Your task to perform on an android device: set the timer Image 0: 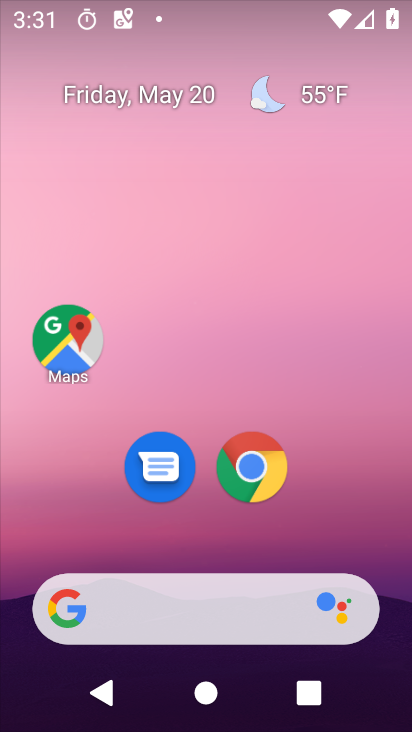
Step 0: drag from (199, 548) to (126, 66)
Your task to perform on an android device: set the timer Image 1: 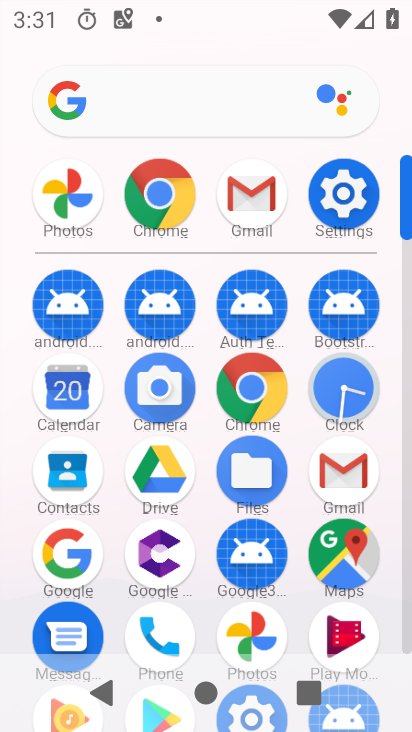
Step 1: click (339, 391)
Your task to perform on an android device: set the timer Image 2: 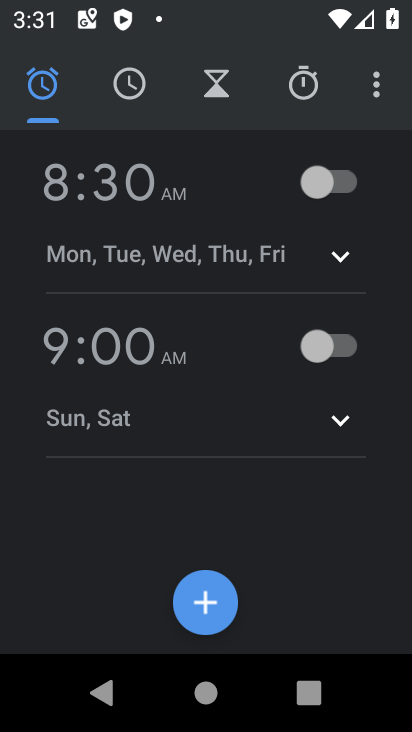
Step 2: click (314, 95)
Your task to perform on an android device: set the timer Image 3: 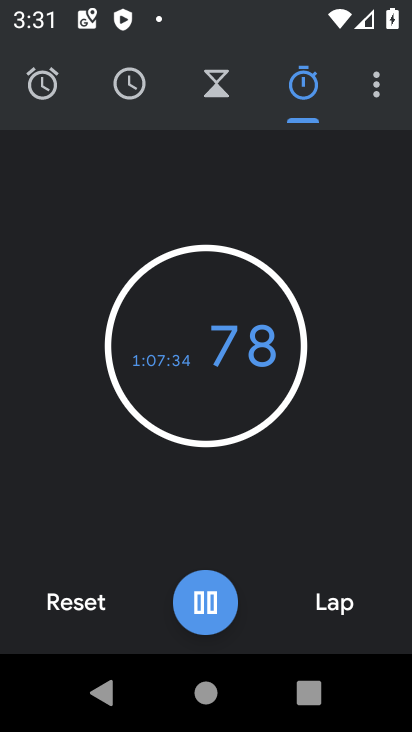
Step 3: click (229, 110)
Your task to perform on an android device: set the timer Image 4: 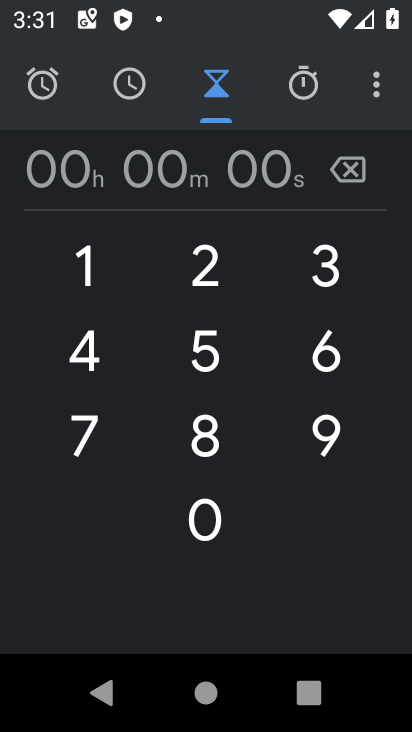
Step 4: click (195, 427)
Your task to perform on an android device: set the timer Image 5: 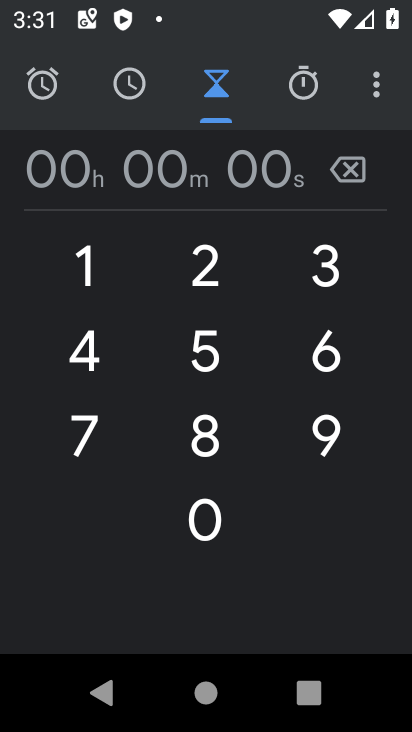
Step 5: click (195, 427)
Your task to perform on an android device: set the timer Image 6: 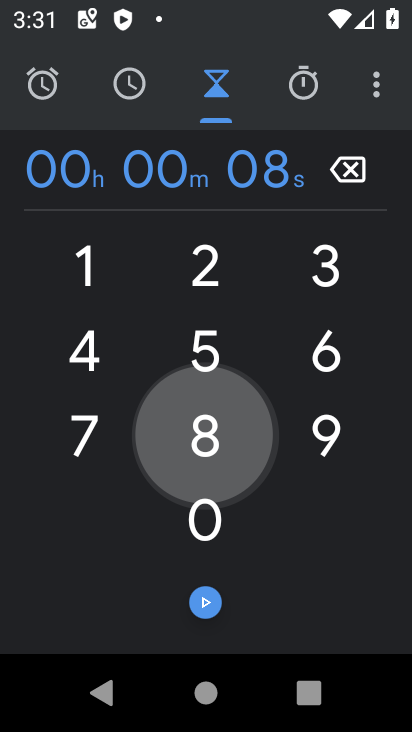
Step 6: click (195, 427)
Your task to perform on an android device: set the timer Image 7: 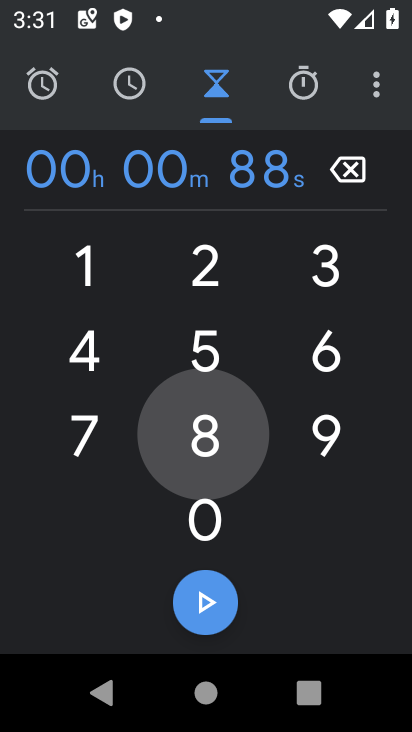
Step 7: click (195, 427)
Your task to perform on an android device: set the timer Image 8: 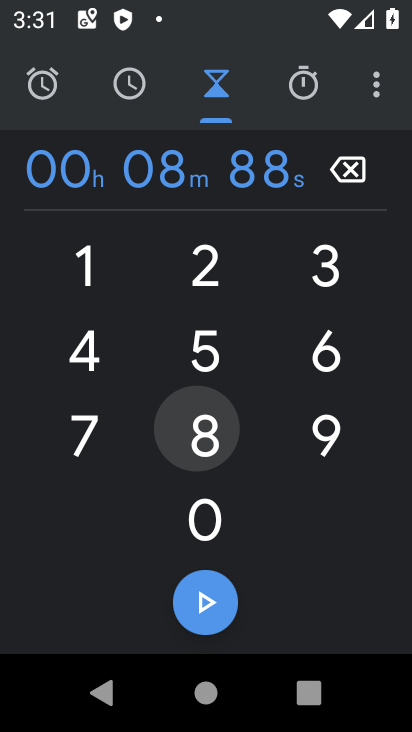
Step 8: click (195, 427)
Your task to perform on an android device: set the timer Image 9: 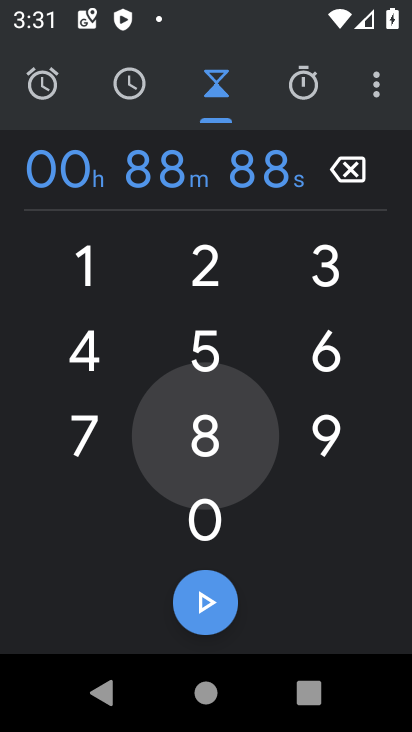
Step 9: click (195, 427)
Your task to perform on an android device: set the timer Image 10: 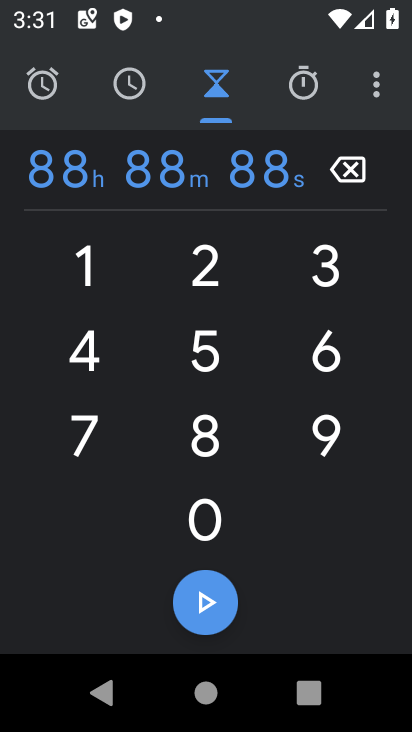
Step 10: click (195, 427)
Your task to perform on an android device: set the timer Image 11: 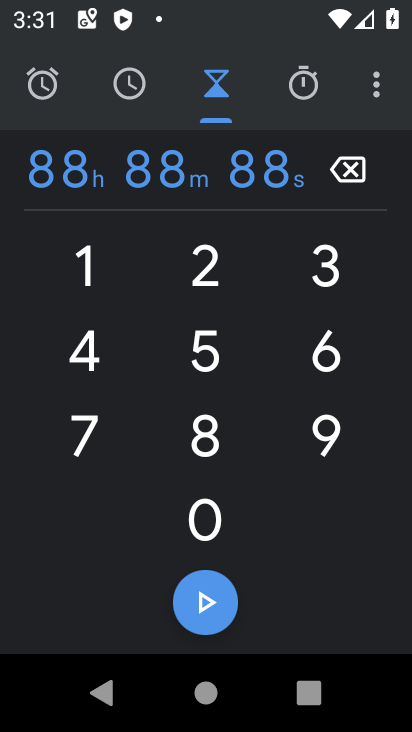
Step 11: click (196, 422)
Your task to perform on an android device: set the timer Image 12: 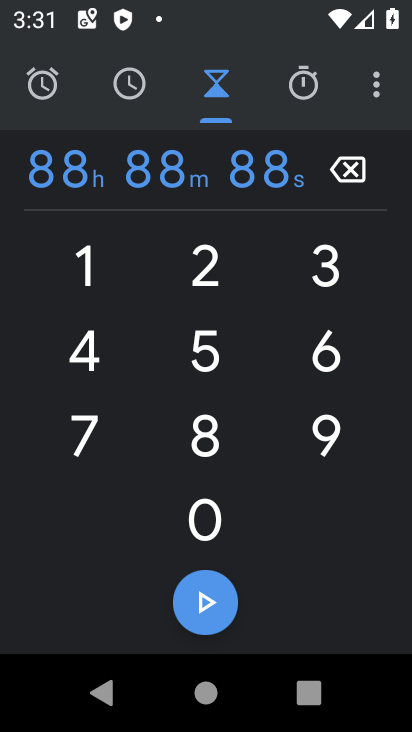
Step 12: click (196, 422)
Your task to perform on an android device: set the timer Image 13: 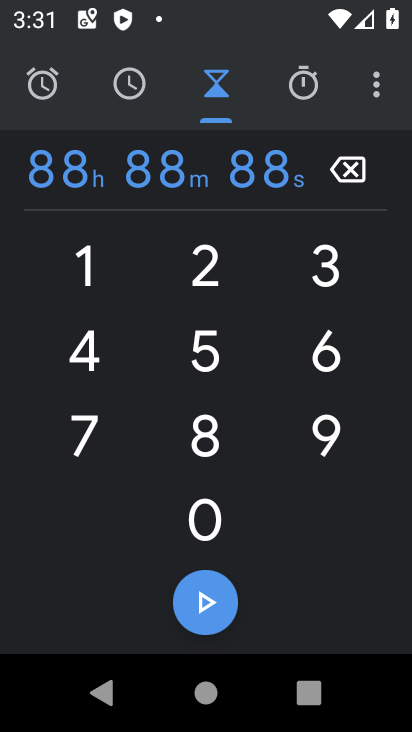
Step 13: click (207, 591)
Your task to perform on an android device: set the timer Image 14: 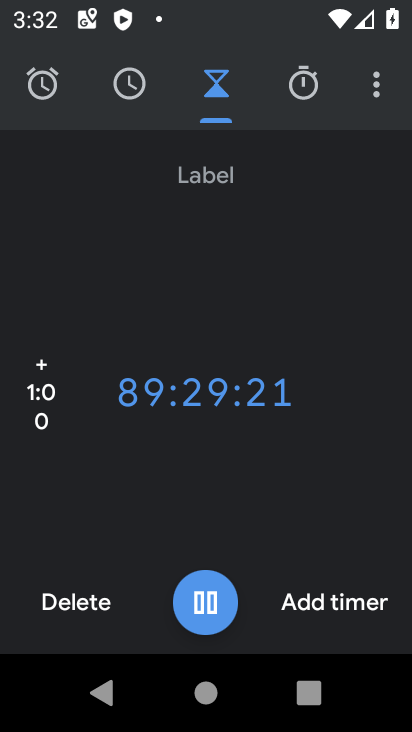
Step 14: task complete